Your task to perform on an android device: turn off improve location accuracy Image 0: 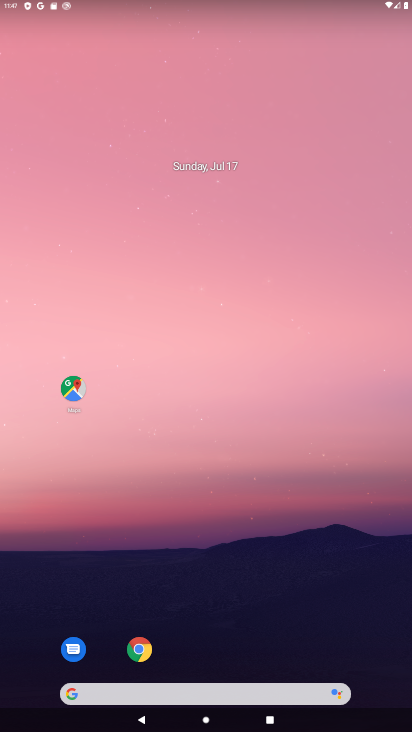
Step 0: drag from (180, 645) to (254, 26)
Your task to perform on an android device: turn off improve location accuracy Image 1: 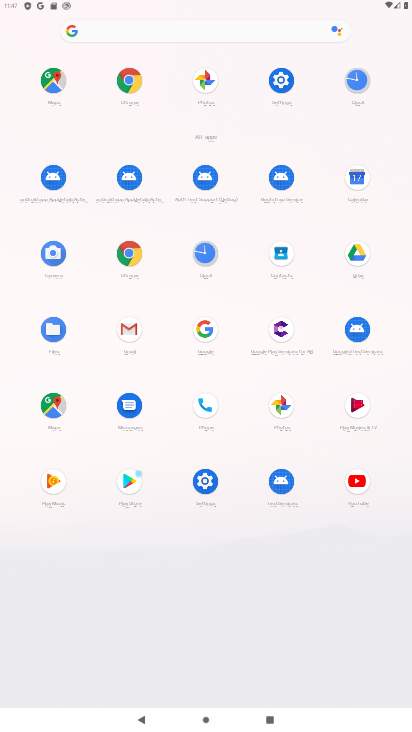
Step 1: click (278, 86)
Your task to perform on an android device: turn off improve location accuracy Image 2: 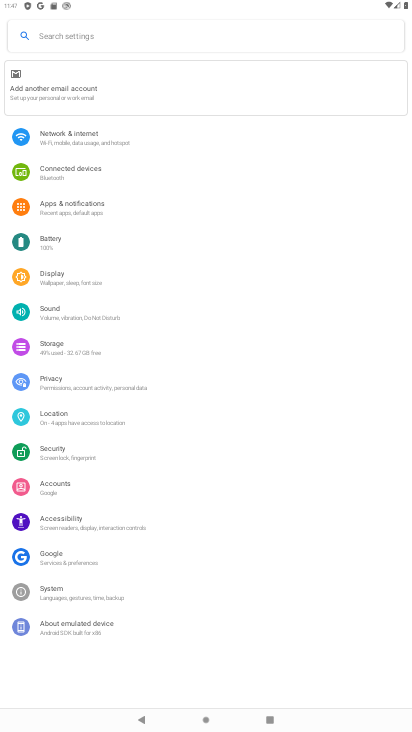
Step 2: click (60, 420)
Your task to perform on an android device: turn off improve location accuracy Image 3: 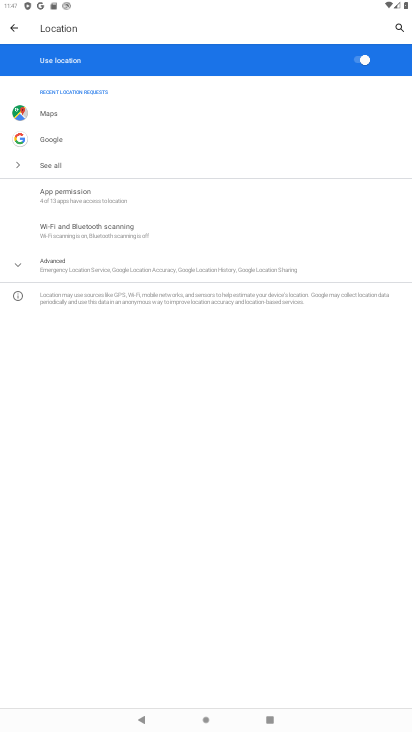
Step 3: click (110, 270)
Your task to perform on an android device: turn off improve location accuracy Image 4: 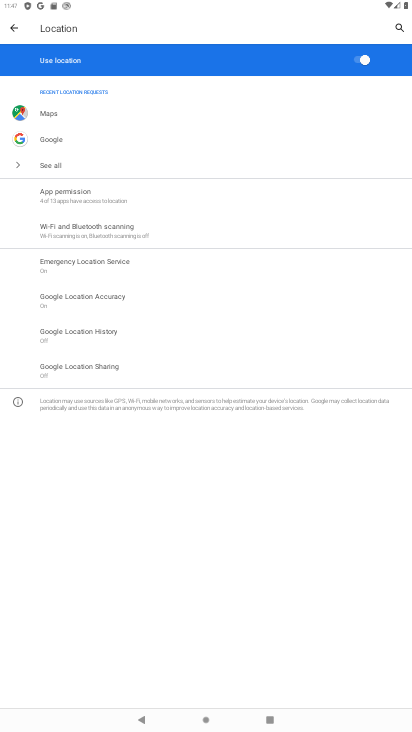
Step 4: click (151, 312)
Your task to perform on an android device: turn off improve location accuracy Image 5: 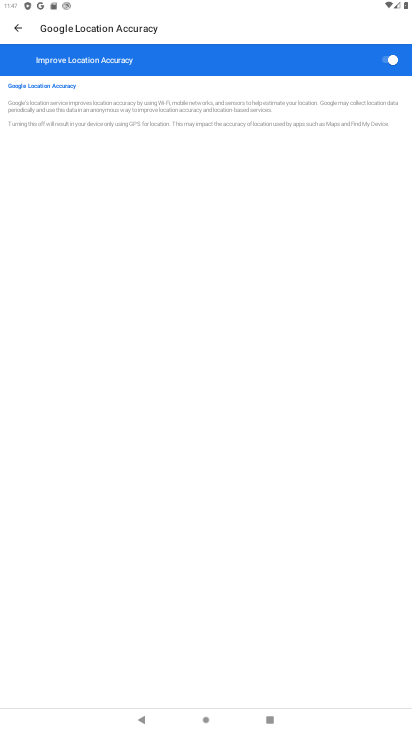
Step 5: click (382, 65)
Your task to perform on an android device: turn off improve location accuracy Image 6: 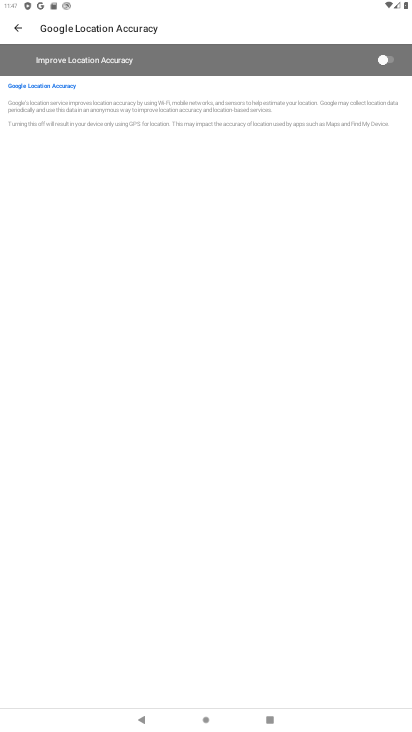
Step 6: task complete